Your task to perform on an android device: see sites visited before in the chrome app Image 0: 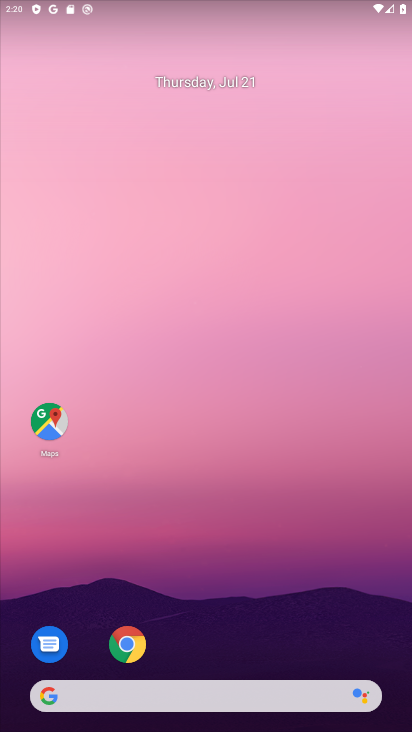
Step 0: drag from (299, 646) to (193, 142)
Your task to perform on an android device: see sites visited before in the chrome app Image 1: 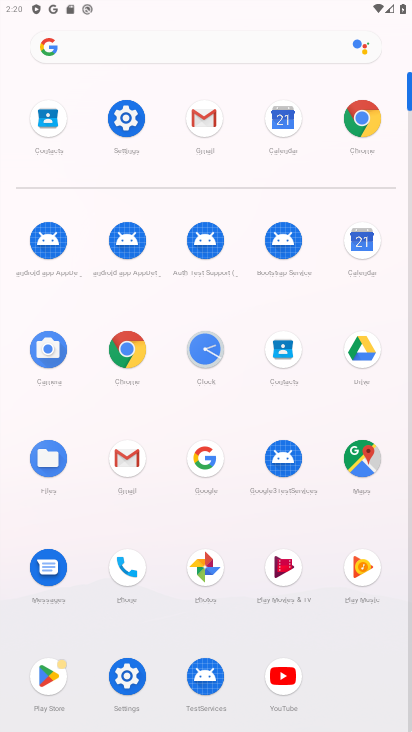
Step 1: click (364, 117)
Your task to perform on an android device: see sites visited before in the chrome app Image 2: 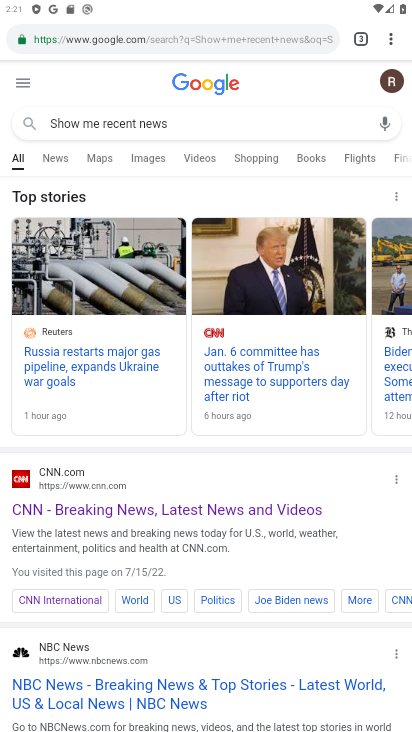
Step 2: click (397, 35)
Your task to perform on an android device: see sites visited before in the chrome app Image 3: 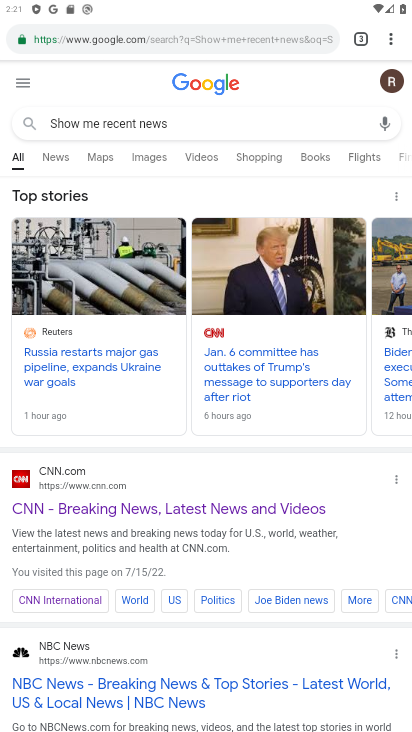
Step 3: click (397, 35)
Your task to perform on an android device: see sites visited before in the chrome app Image 4: 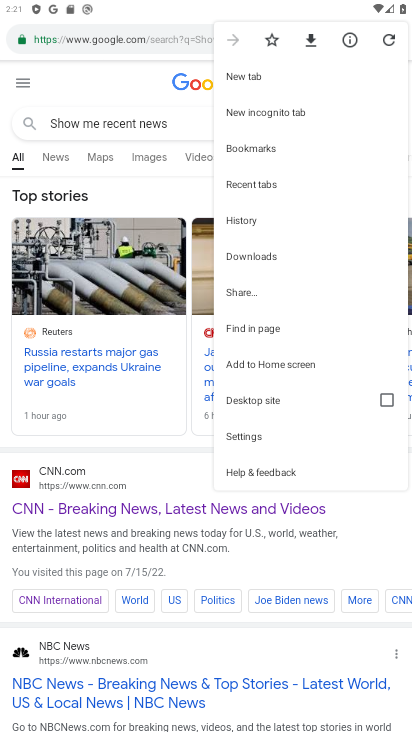
Step 4: click (286, 225)
Your task to perform on an android device: see sites visited before in the chrome app Image 5: 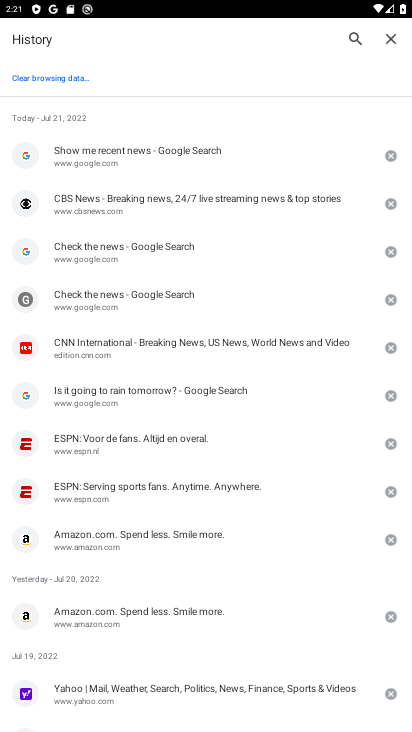
Step 5: task complete